Your task to perform on an android device: all mails in gmail Image 0: 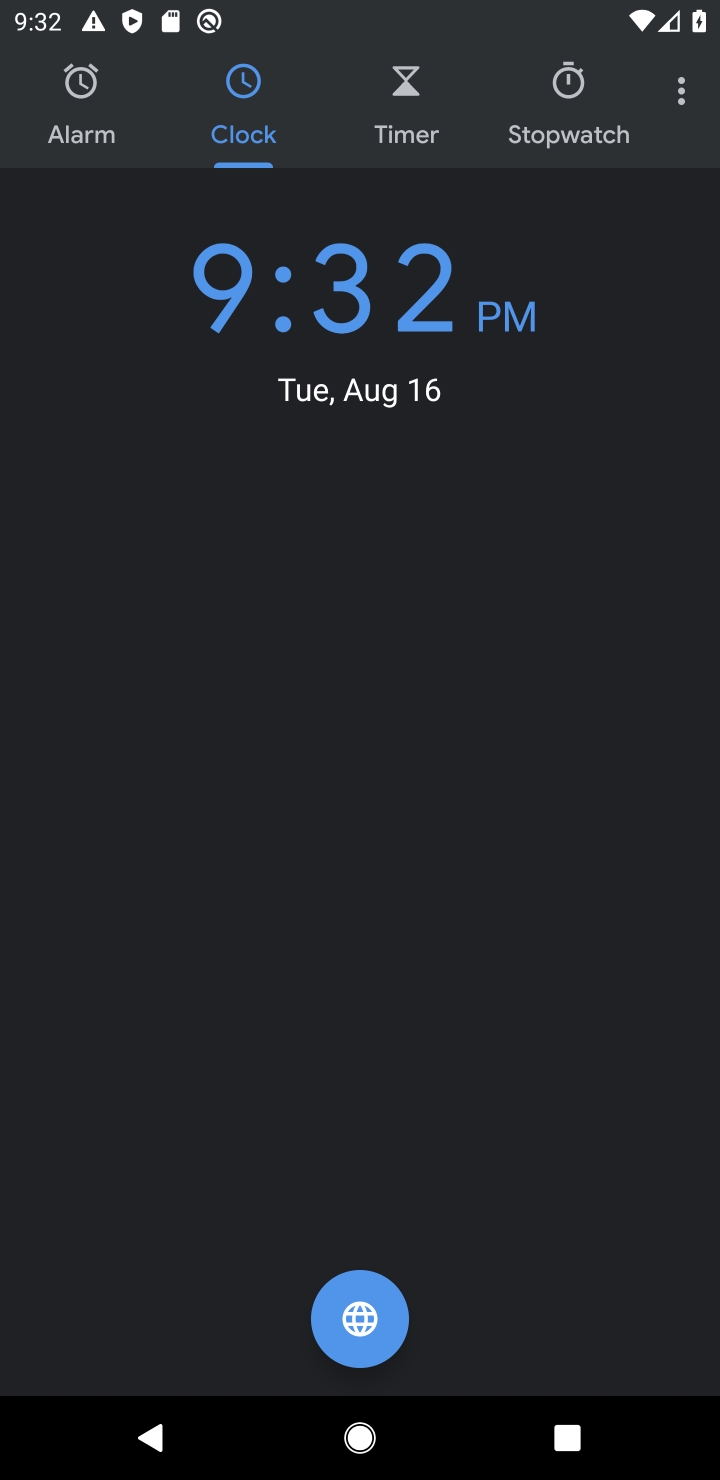
Step 0: press home button
Your task to perform on an android device: all mails in gmail Image 1: 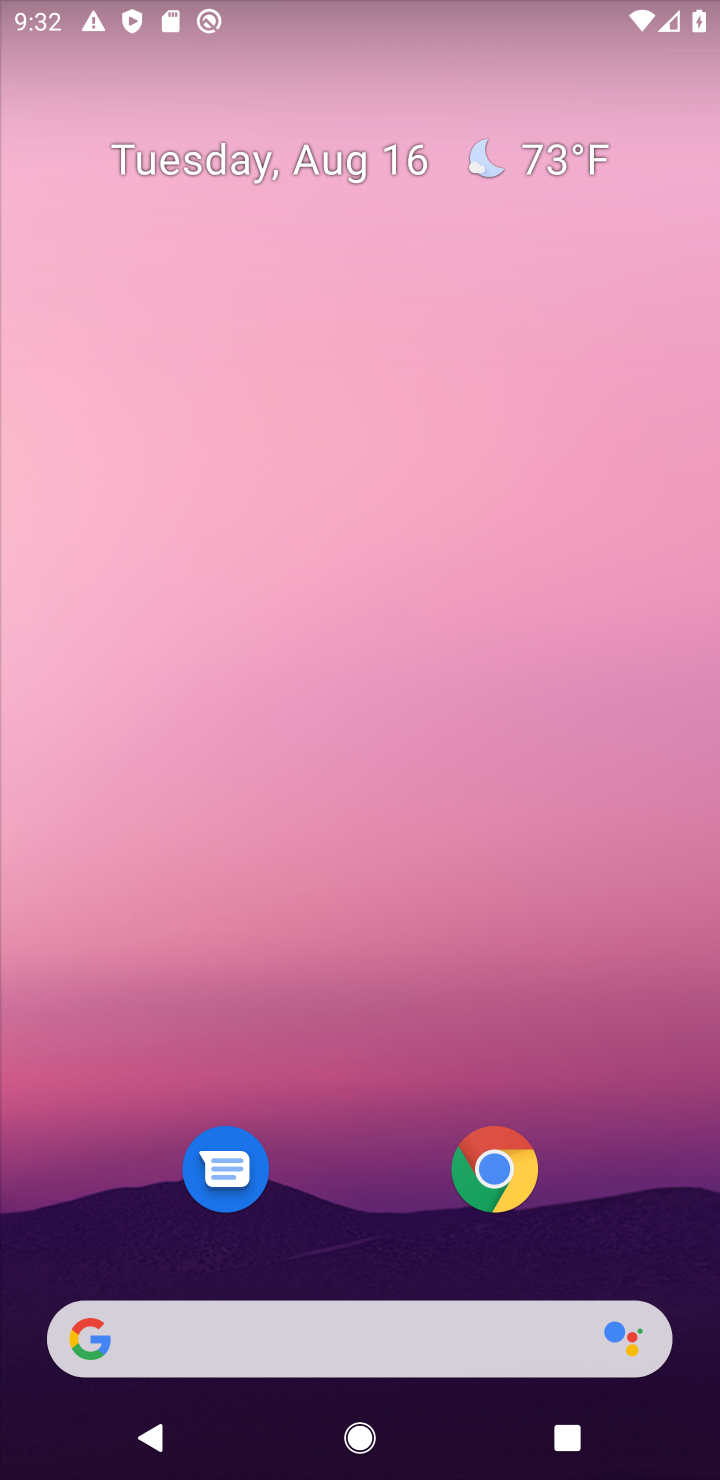
Step 1: drag from (310, 496) to (329, 97)
Your task to perform on an android device: all mails in gmail Image 2: 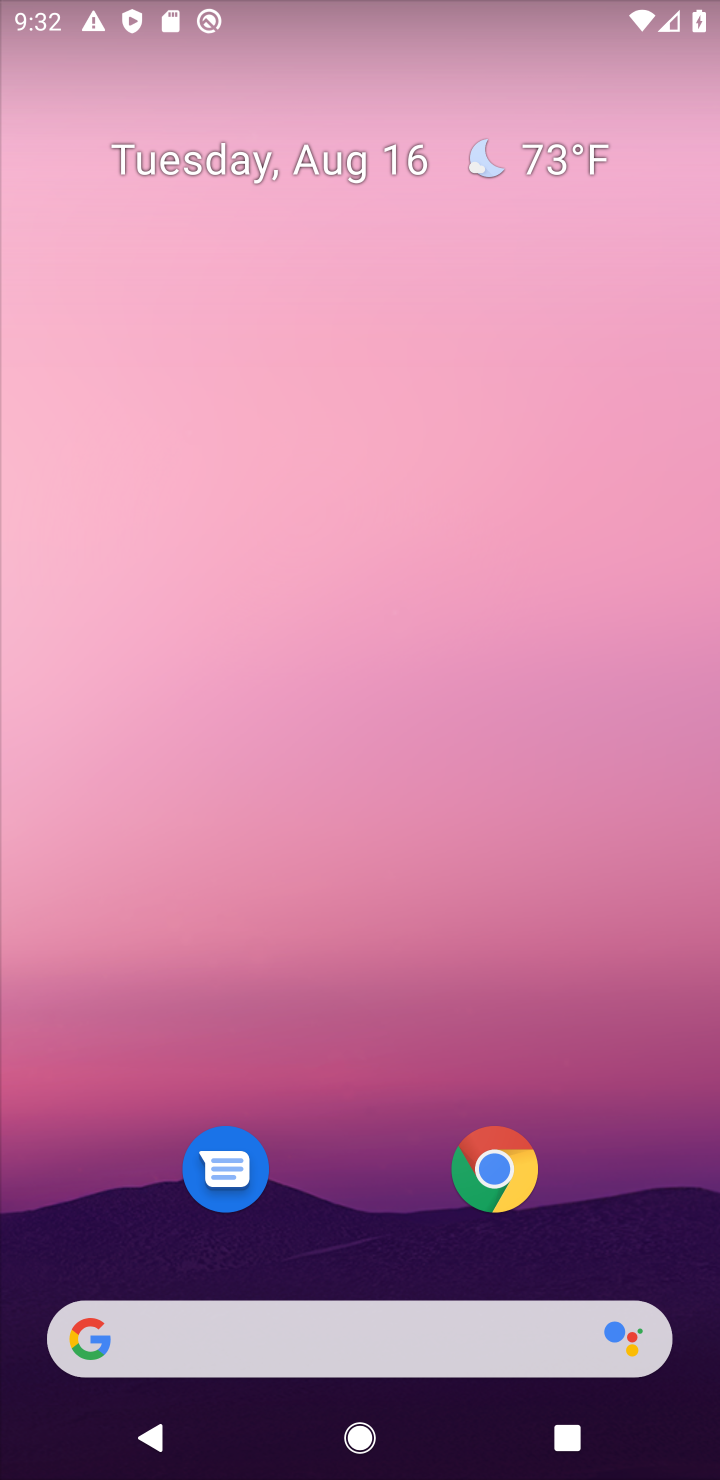
Step 2: drag from (374, 906) to (436, 225)
Your task to perform on an android device: all mails in gmail Image 3: 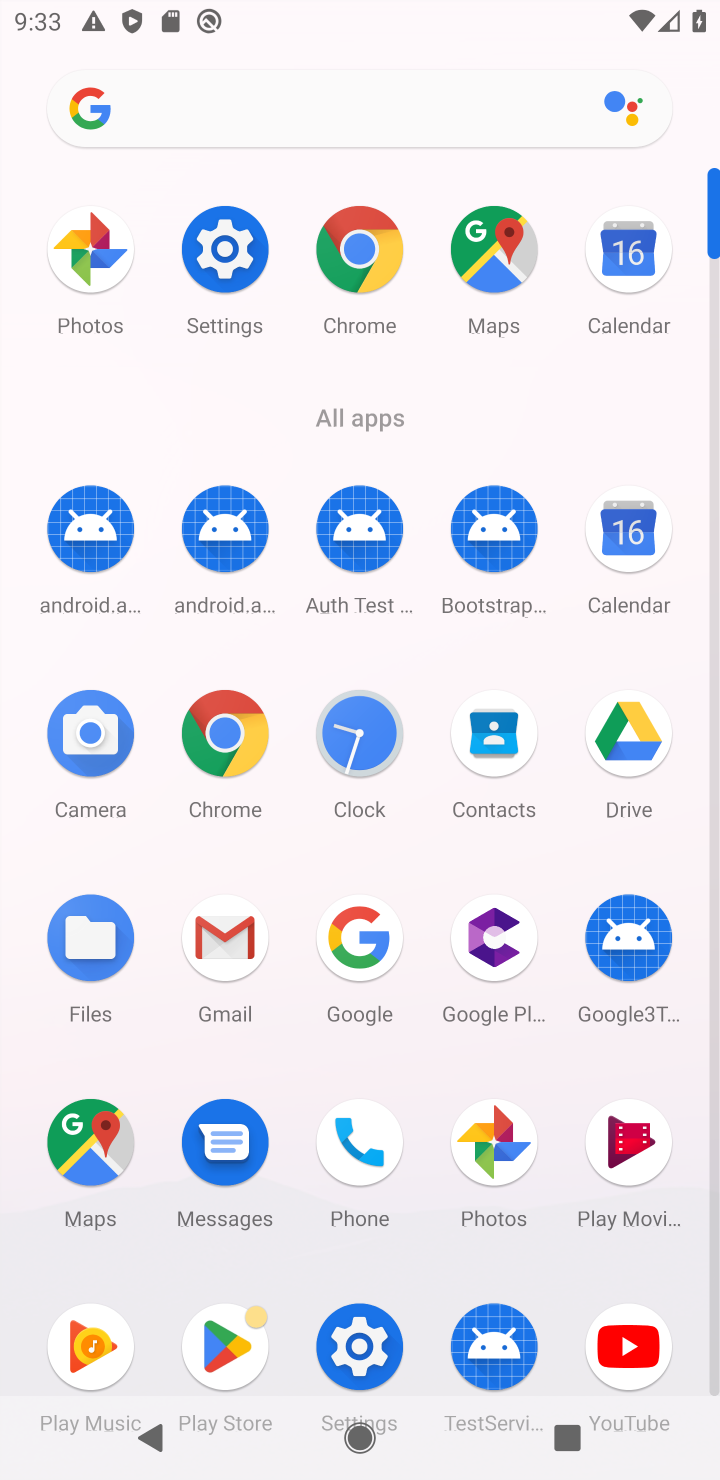
Step 3: click (226, 936)
Your task to perform on an android device: all mails in gmail Image 4: 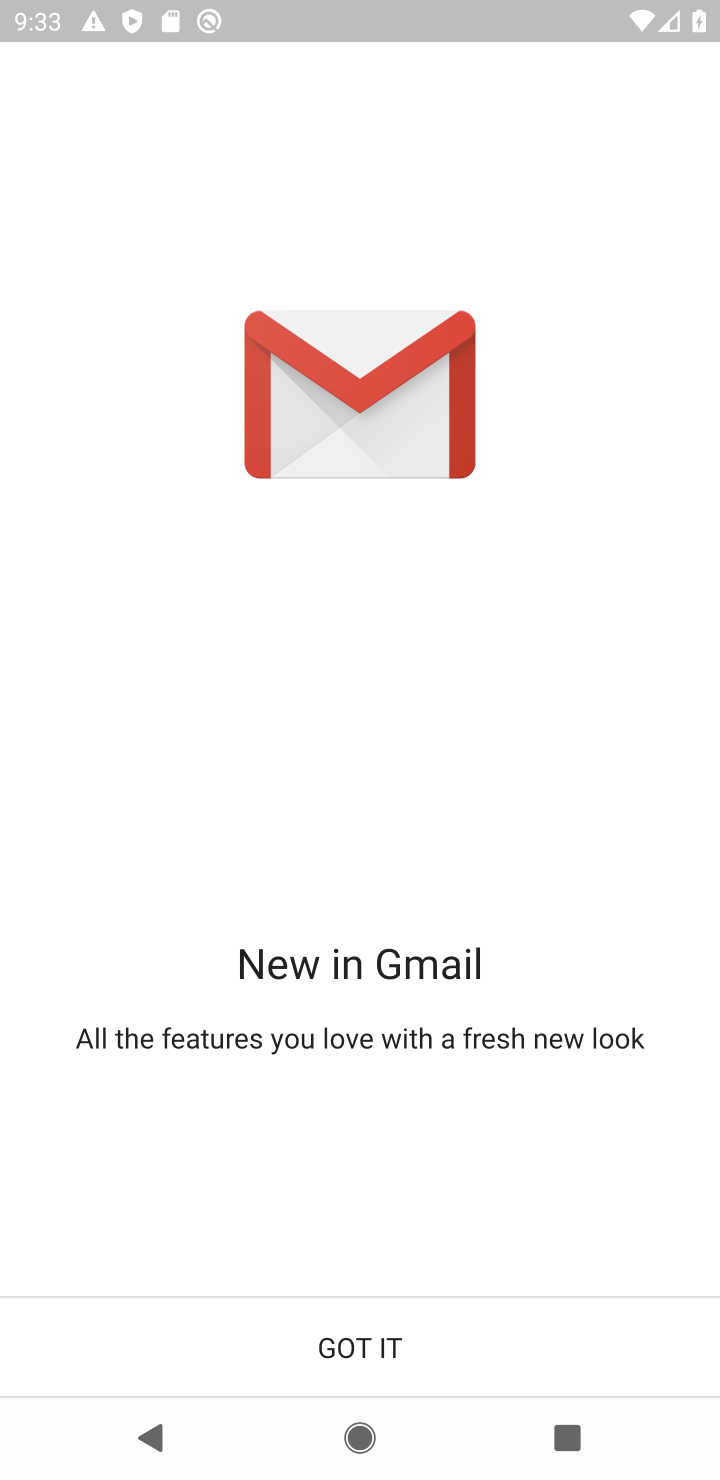
Step 4: click (350, 1369)
Your task to perform on an android device: all mails in gmail Image 5: 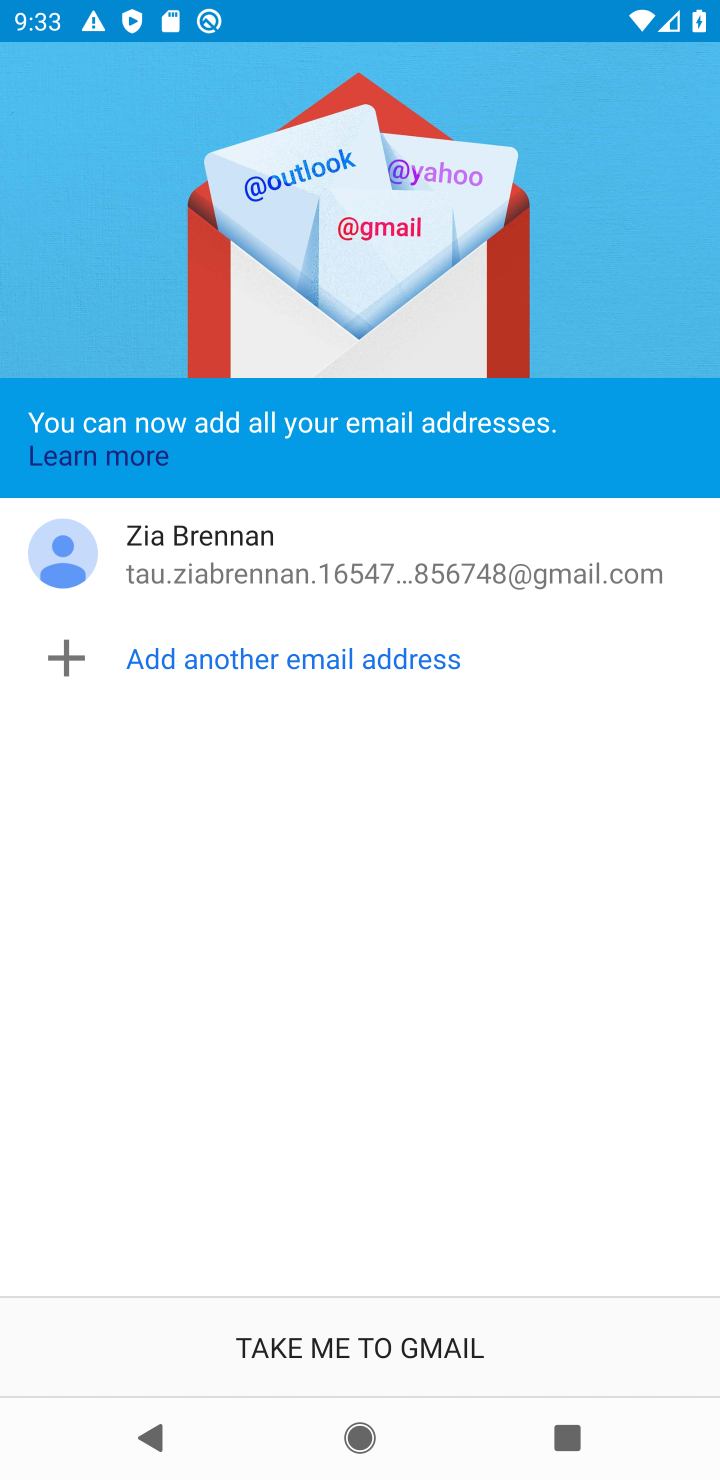
Step 5: click (350, 1369)
Your task to perform on an android device: all mails in gmail Image 6: 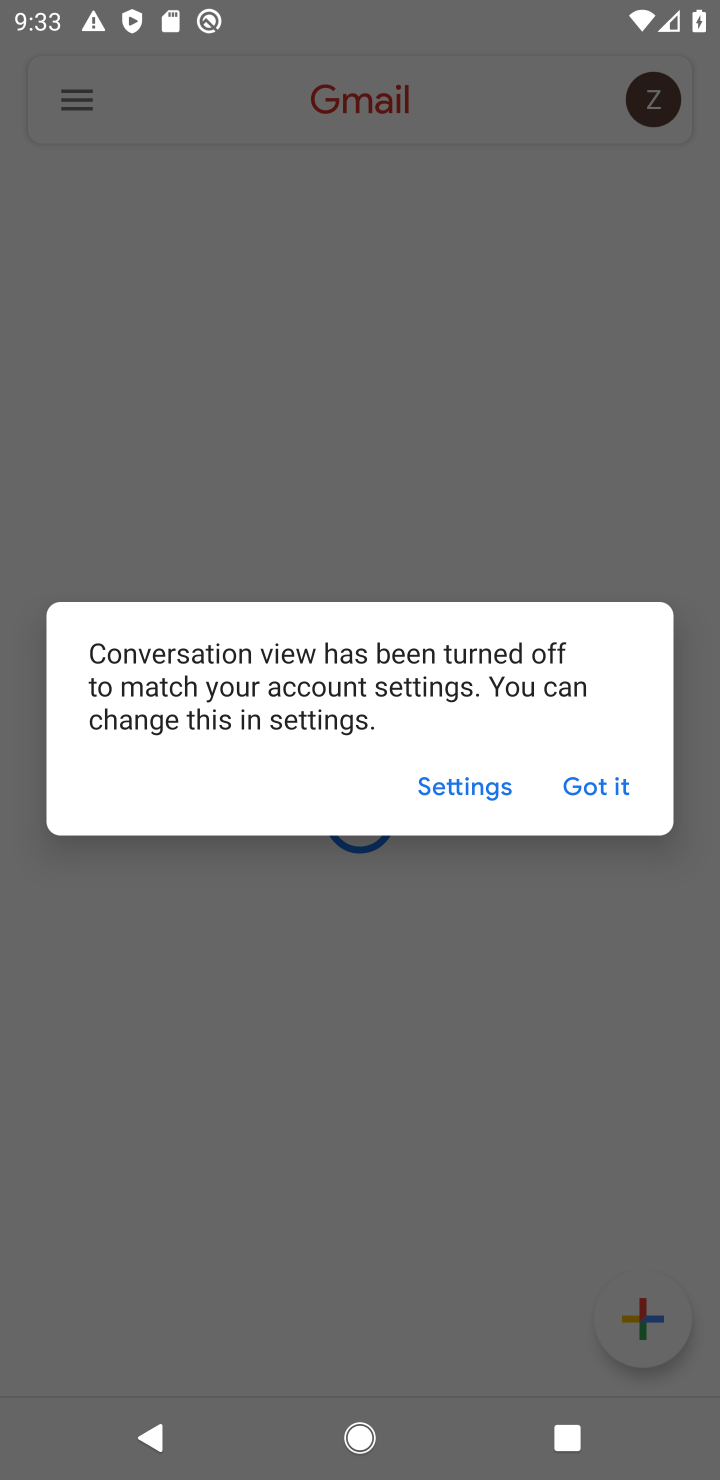
Step 6: click (585, 790)
Your task to perform on an android device: all mails in gmail Image 7: 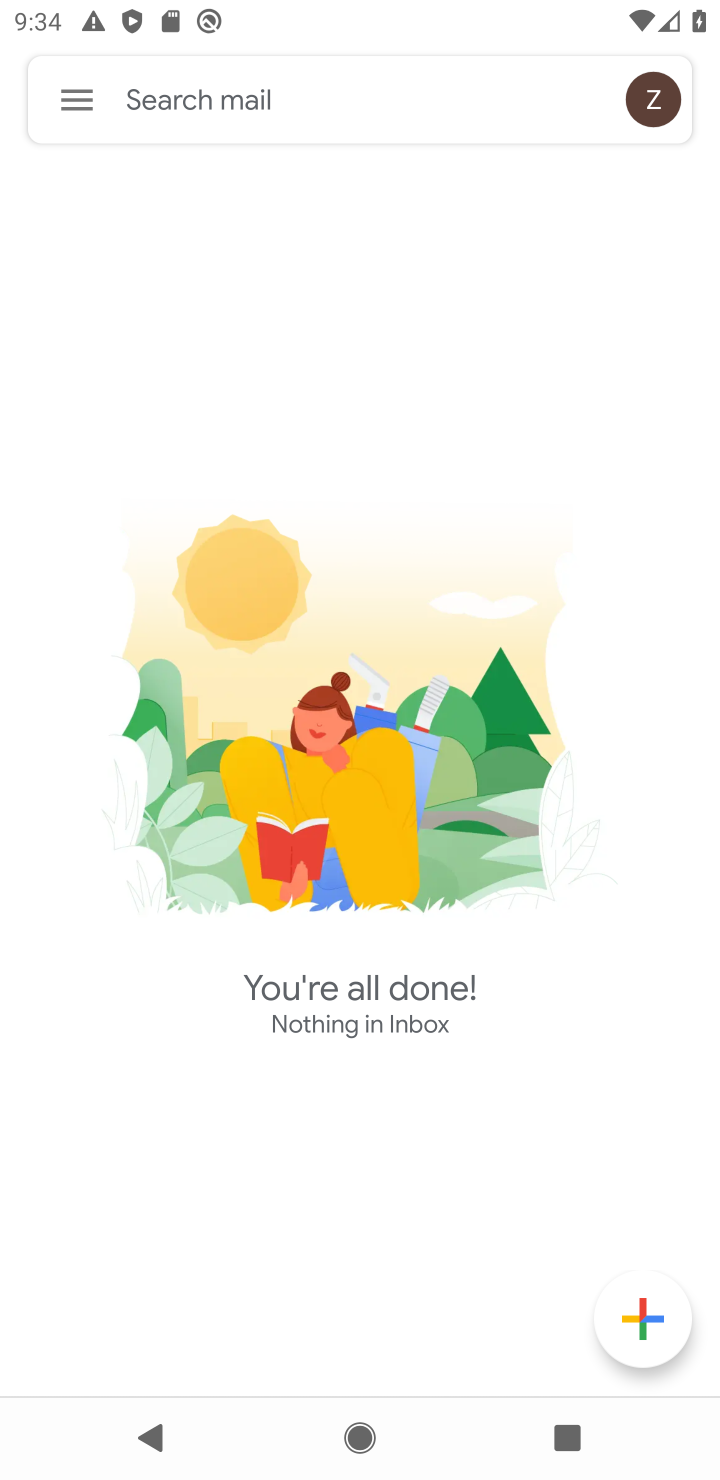
Step 7: click (77, 111)
Your task to perform on an android device: all mails in gmail Image 8: 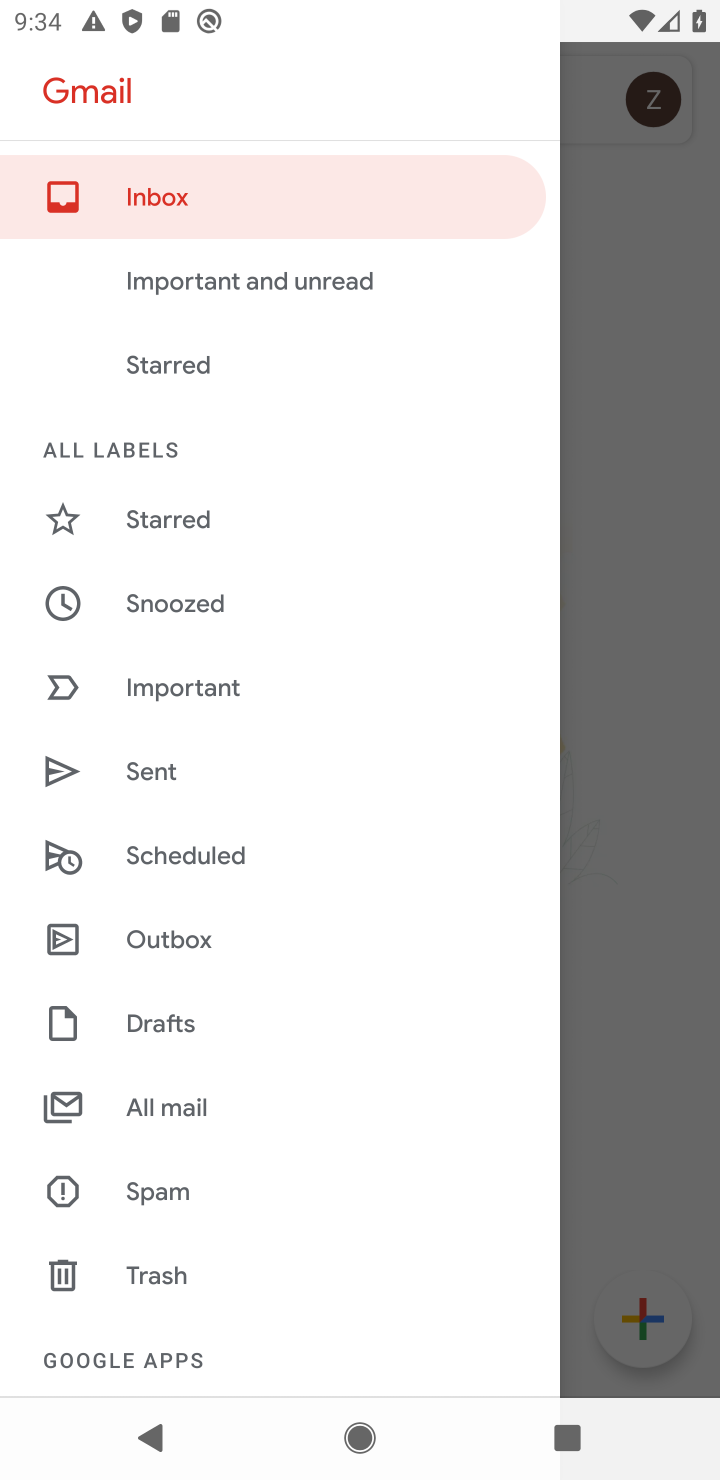
Step 8: click (162, 1114)
Your task to perform on an android device: all mails in gmail Image 9: 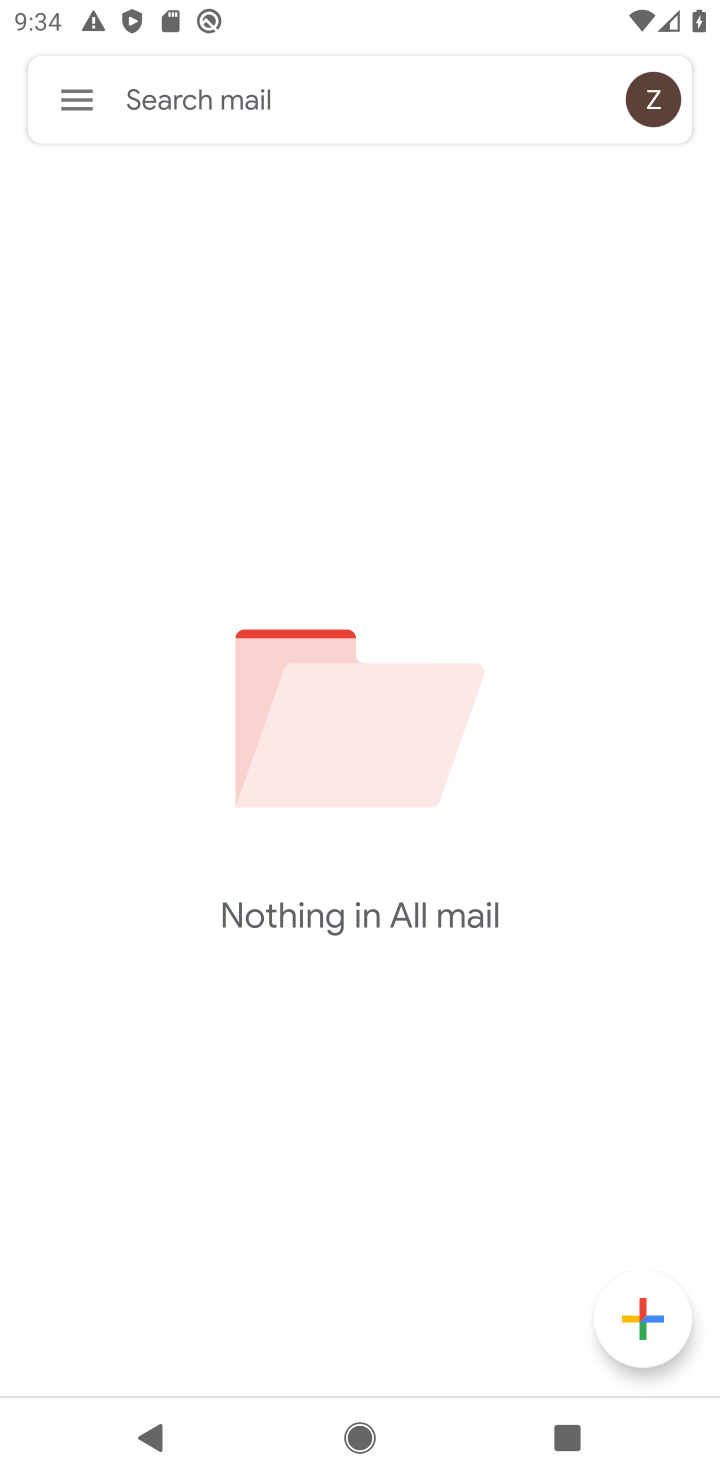
Step 9: task complete